Your task to perform on an android device: Search for Italian restaurants on Maps Image 0: 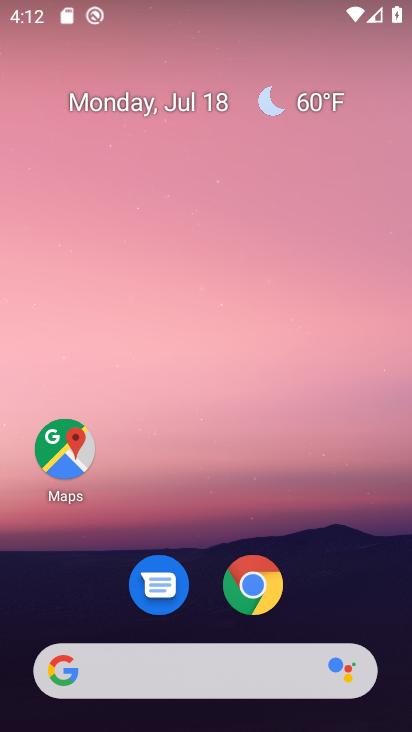
Step 0: click (74, 454)
Your task to perform on an android device: Search for Italian restaurants on Maps Image 1: 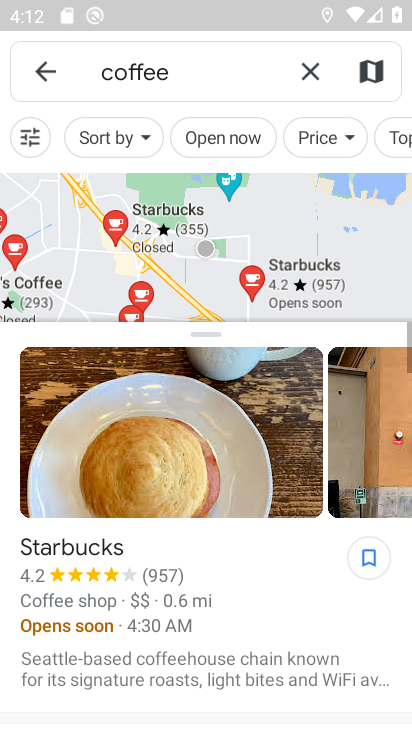
Step 1: click (313, 65)
Your task to perform on an android device: Search for Italian restaurants on Maps Image 2: 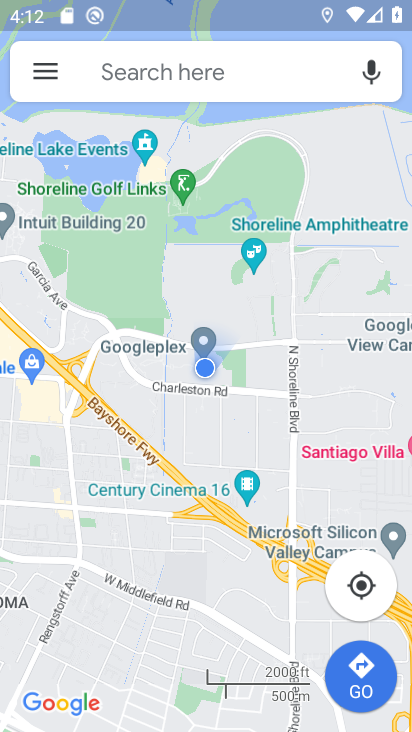
Step 2: click (262, 76)
Your task to perform on an android device: Search for Italian restaurants on Maps Image 3: 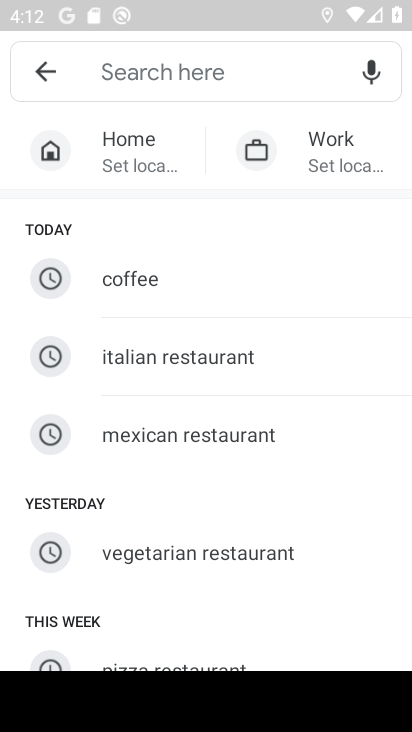
Step 3: click (209, 348)
Your task to perform on an android device: Search for Italian restaurants on Maps Image 4: 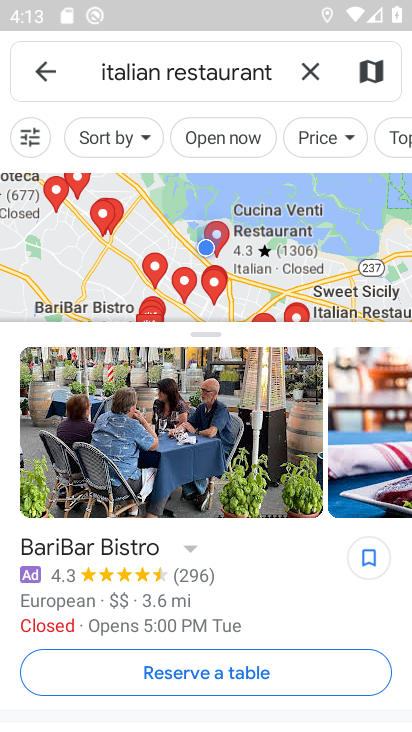
Step 4: task complete